Your task to perform on an android device: Show me popular games on the Play Store Image 0: 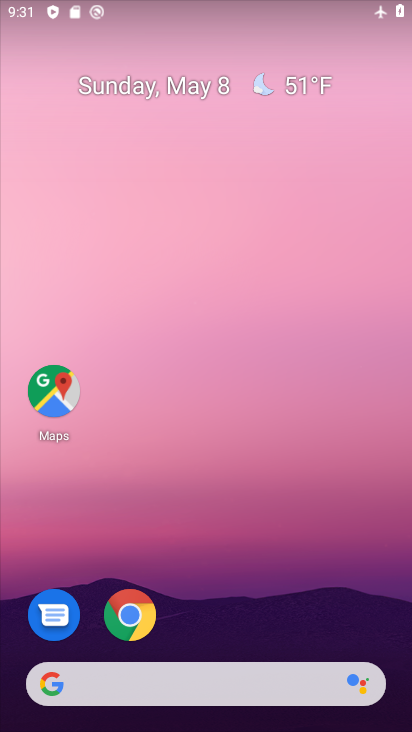
Step 0: drag from (191, 598) to (191, 167)
Your task to perform on an android device: Show me popular games on the Play Store Image 1: 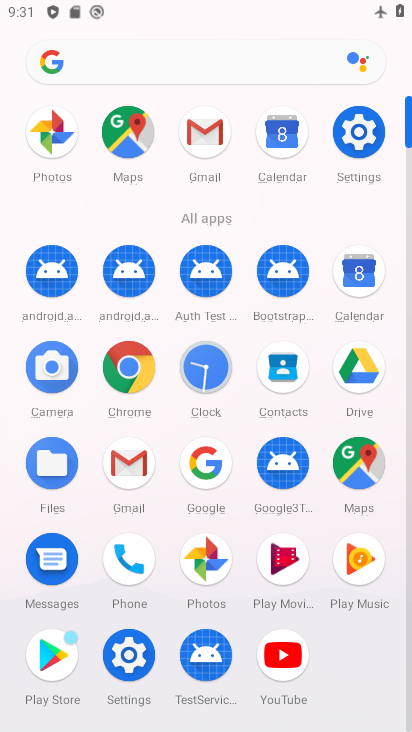
Step 1: click (60, 642)
Your task to perform on an android device: Show me popular games on the Play Store Image 2: 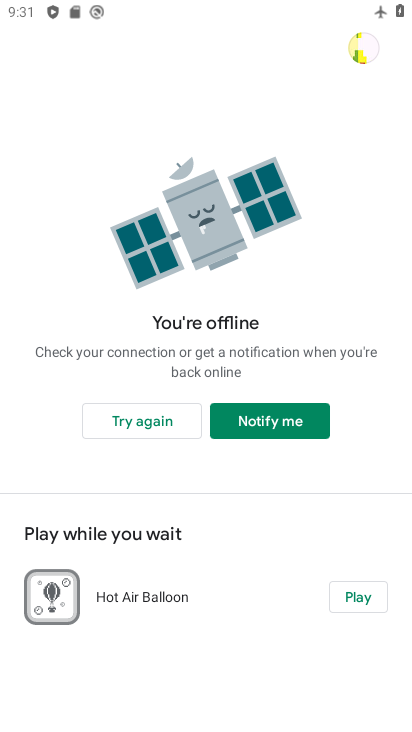
Step 2: task complete